Your task to perform on an android device: Toggle the flashlight Image 0: 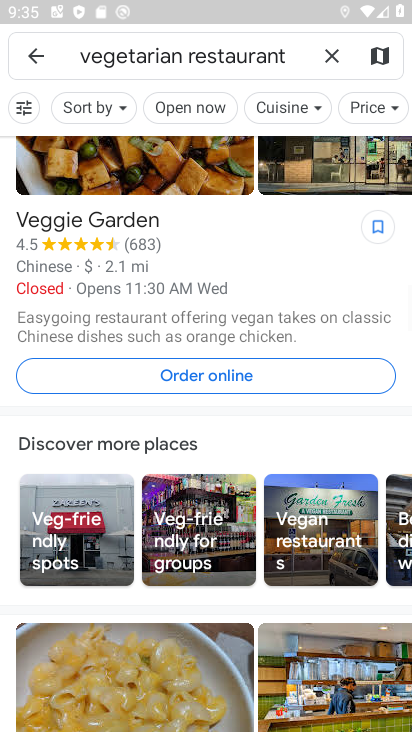
Step 0: press home button
Your task to perform on an android device: Toggle the flashlight Image 1: 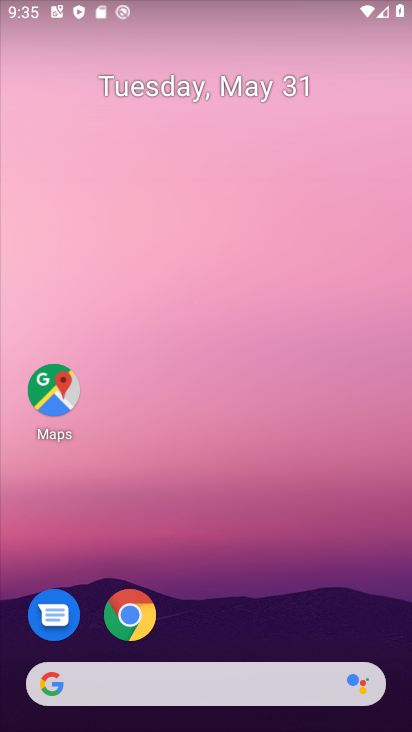
Step 1: drag from (227, 9) to (245, 458)
Your task to perform on an android device: Toggle the flashlight Image 2: 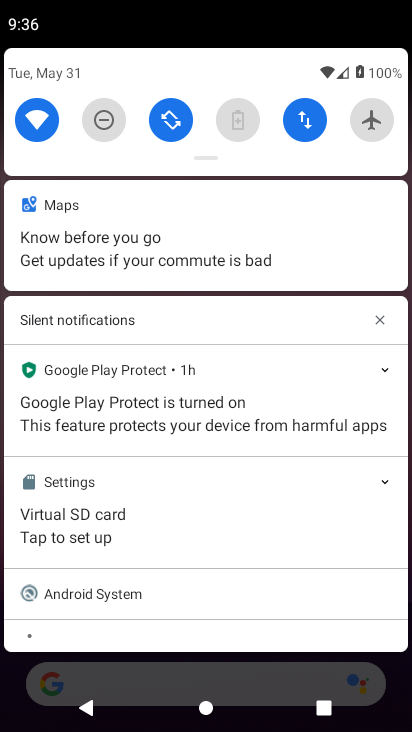
Step 2: drag from (204, 162) to (227, 494)
Your task to perform on an android device: Toggle the flashlight Image 3: 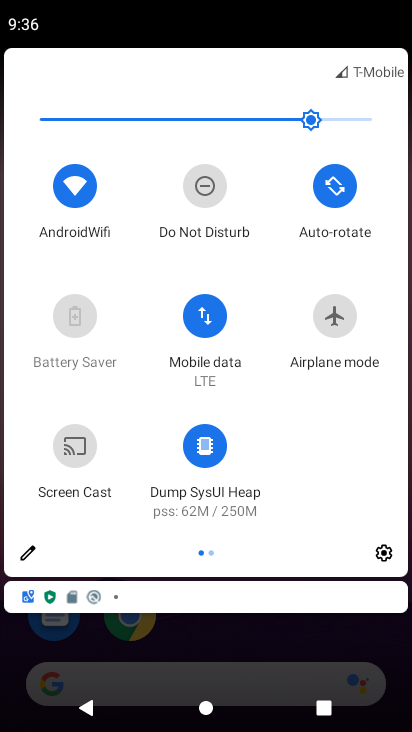
Step 3: click (26, 556)
Your task to perform on an android device: Toggle the flashlight Image 4: 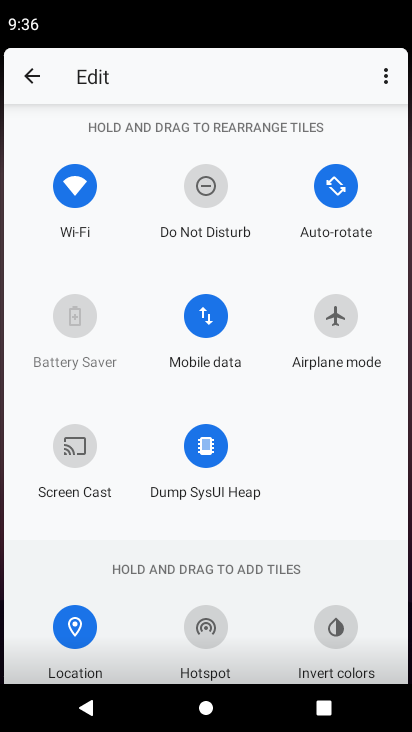
Step 4: task complete